Your task to perform on an android device: Clear the shopping cart on amazon. Search for "bose soundsport free" on amazon, select the first entry, add it to the cart, then select checkout. Image 0: 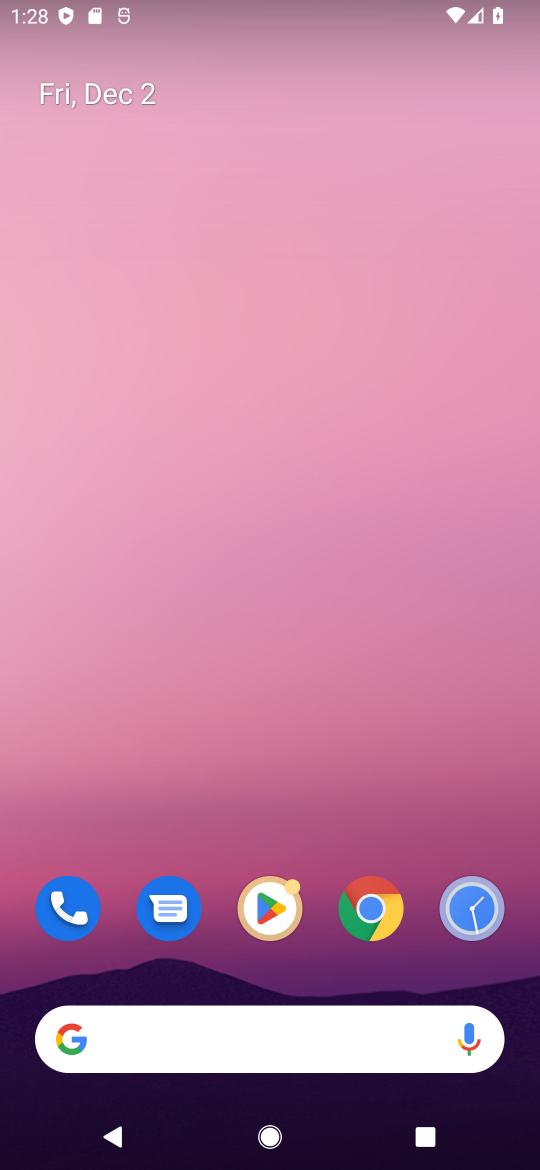
Step 0: drag from (193, 1050) to (336, 377)
Your task to perform on an android device: Clear the shopping cart on amazon. Search for "bose soundsport free" on amazon, select the first entry, add it to the cart, then select checkout. Image 1: 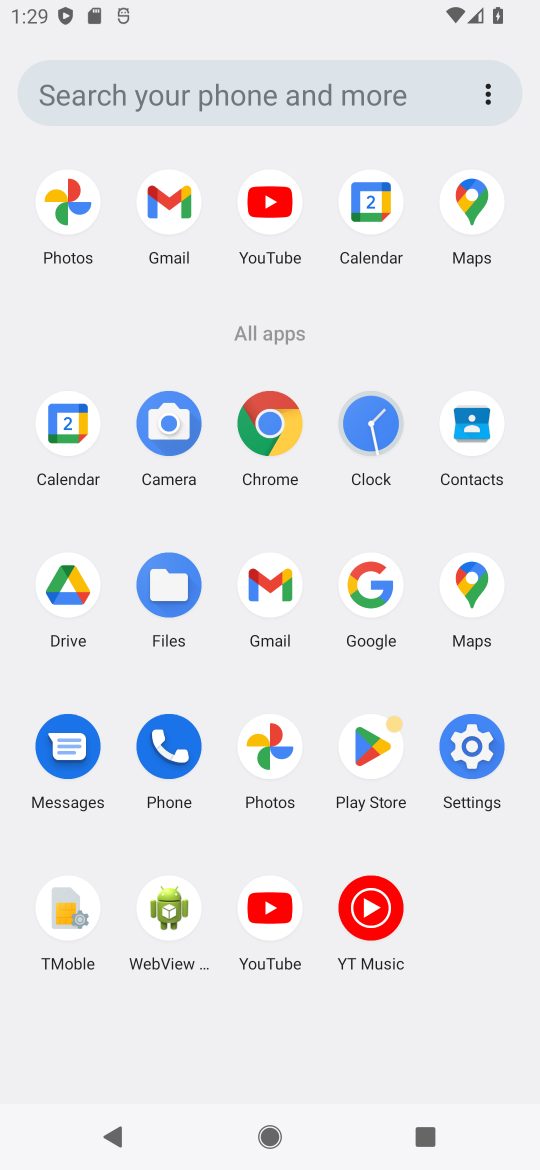
Step 1: click (380, 592)
Your task to perform on an android device: Clear the shopping cart on amazon. Search for "bose soundsport free" on amazon, select the first entry, add it to the cart, then select checkout. Image 2: 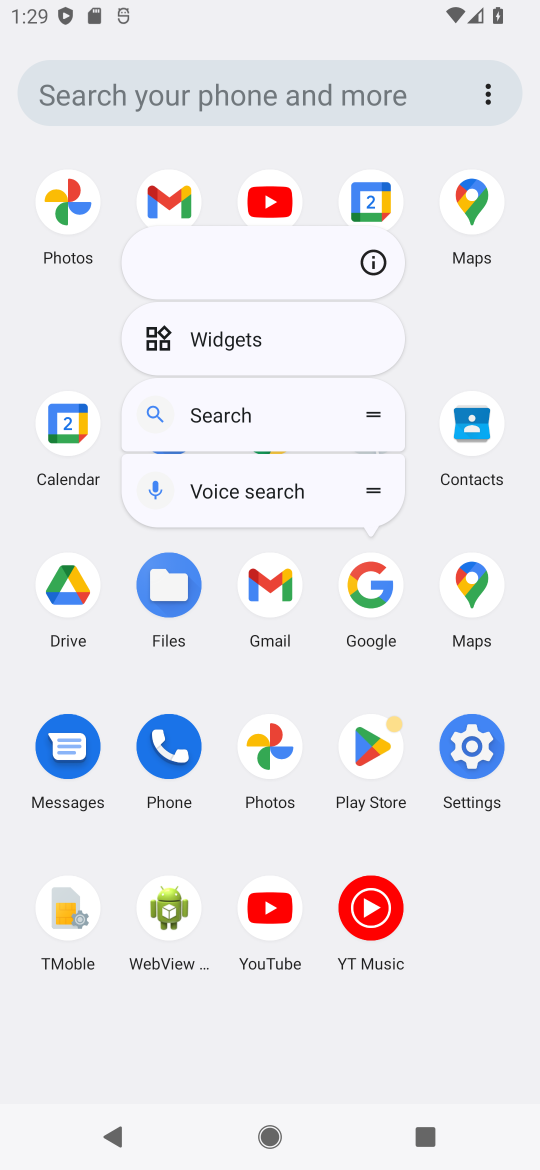
Step 2: click (376, 569)
Your task to perform on an android device: Clear the shopping cart on amazon. Search for "bose soundsport free" on amazon, select the first entry, add it to the cart, then select checkout. Image 3: 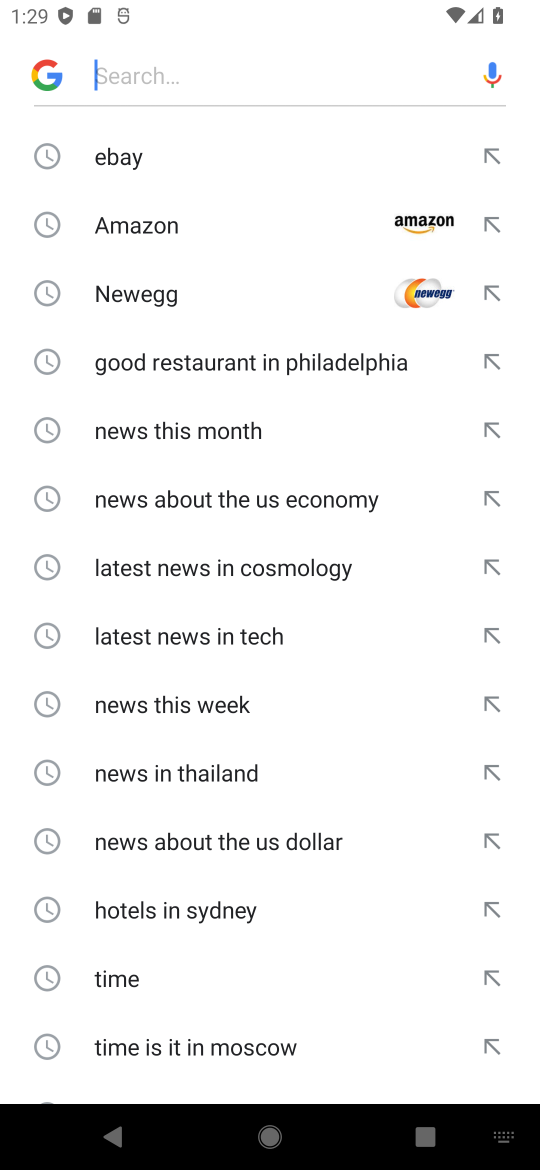
Step 3: click (369, 591)
Your task to perform on an android device: Clear the shopping cart on amazon. Search for "bose soundsport free" on amazon, select the first entry, add it to the cart, then select checkout. Image 4: 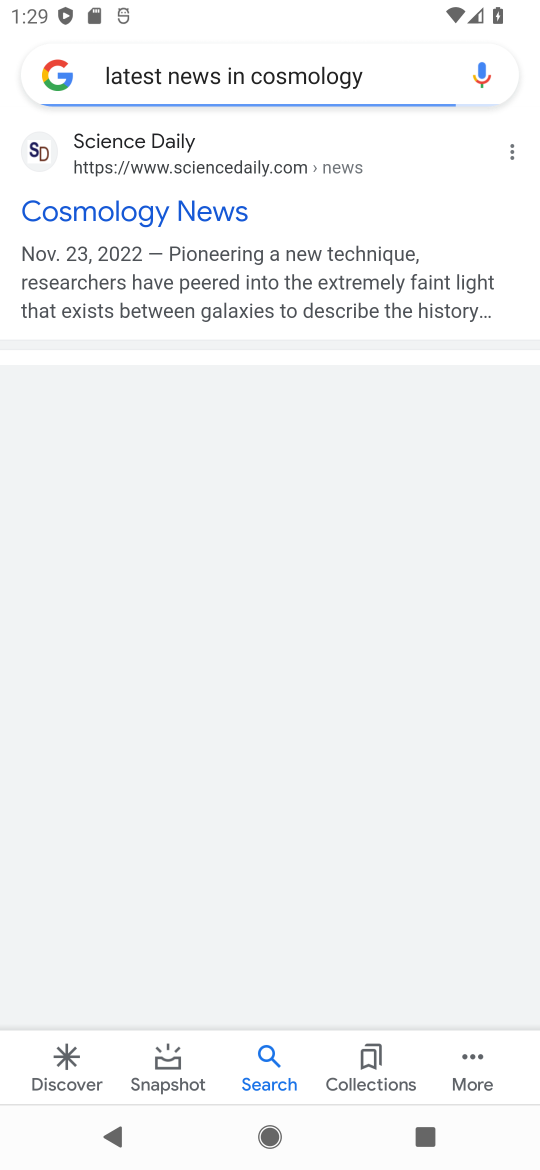
Step 4: click (391, 77)
Your task to perform on an android device: Clear the shopping cart on amazon. Search for "bose soundsport free" on amazon, select the first entry, add it to the cart, then select checkout. Image 5: 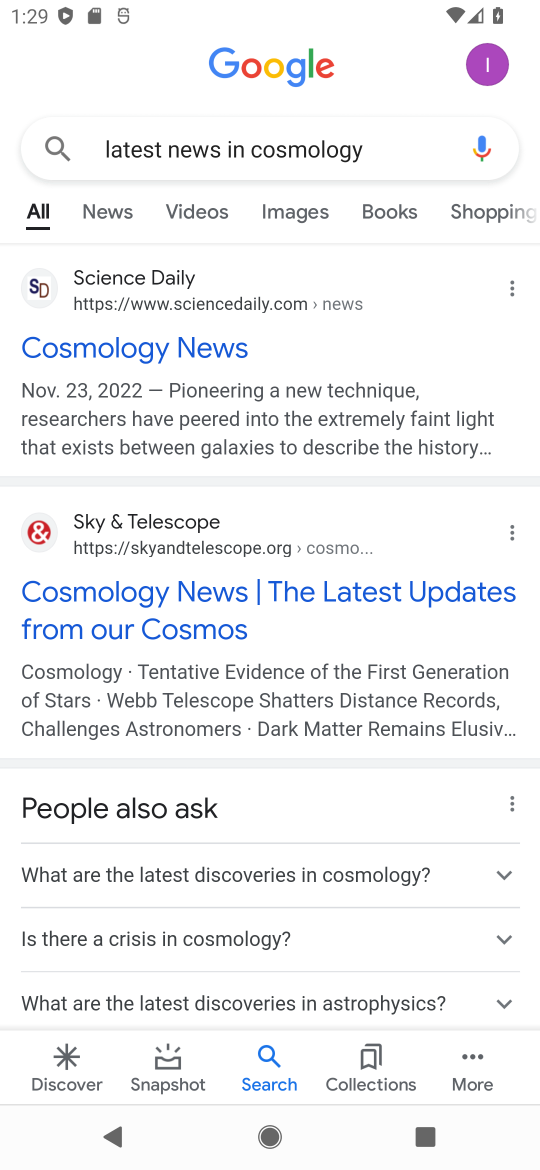
Step 5: click (386, 151)
Your task to perform on an android device: Clear the shopping cart on amazon. Search for "bose soundsport free" on amazon, select the first entry, add it to the cart, then select checkout. Image 6: 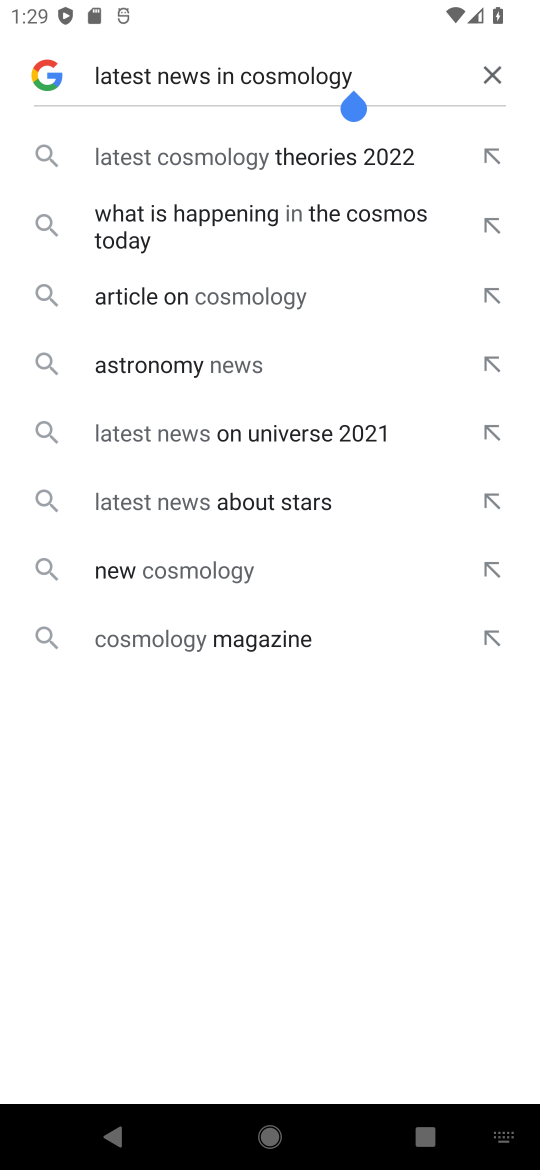
Step 6: click (489, 73)
Your task to perform on an android device: Clear the shopping cart on amazon. Search for "bose soundsport free" on amazon, select the first entry, add it to the cart, then select checkout. Image 7: 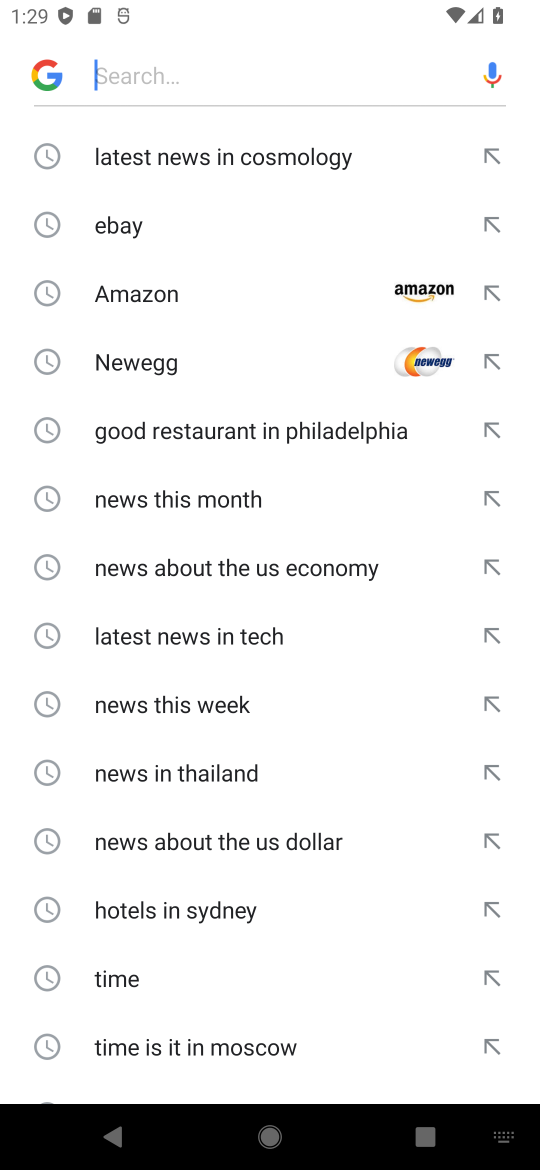
Step 7: click (174, 288)
Your task to perform on an android device: Clear the shopping cart on amazon. Search for "bose soundsport free" on amazon, select the first entry, add it to the cart, then select checkout. Image 8: 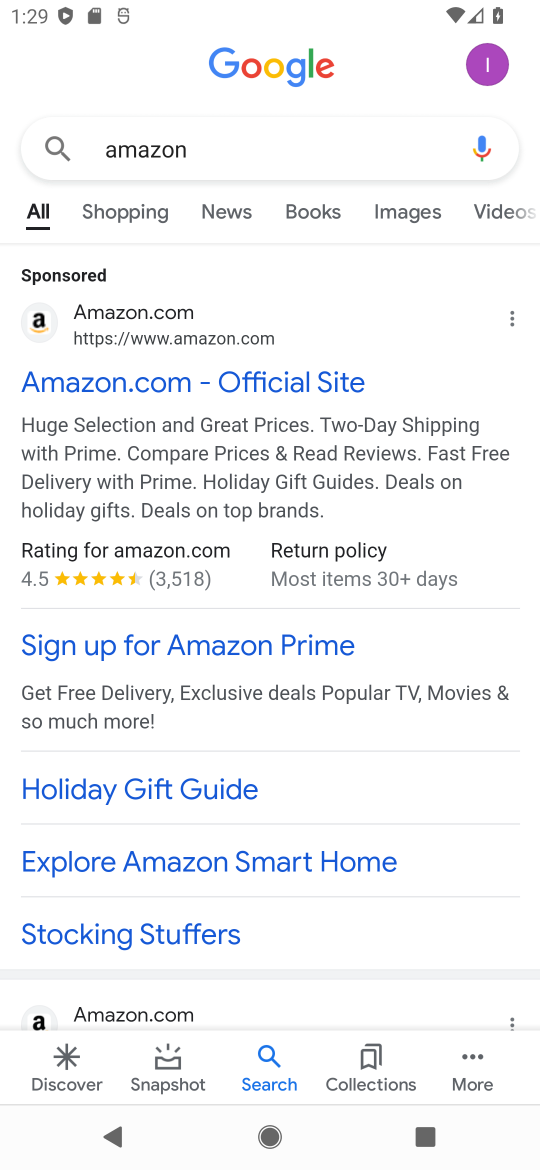
Step 8: click (152, 384)
Your task to perform on an android device: Clear the shopping cart on amazon. Search for "bose soundsport free" on amazon, select the first entry, add it to the cart, then select checkout. Image 9: 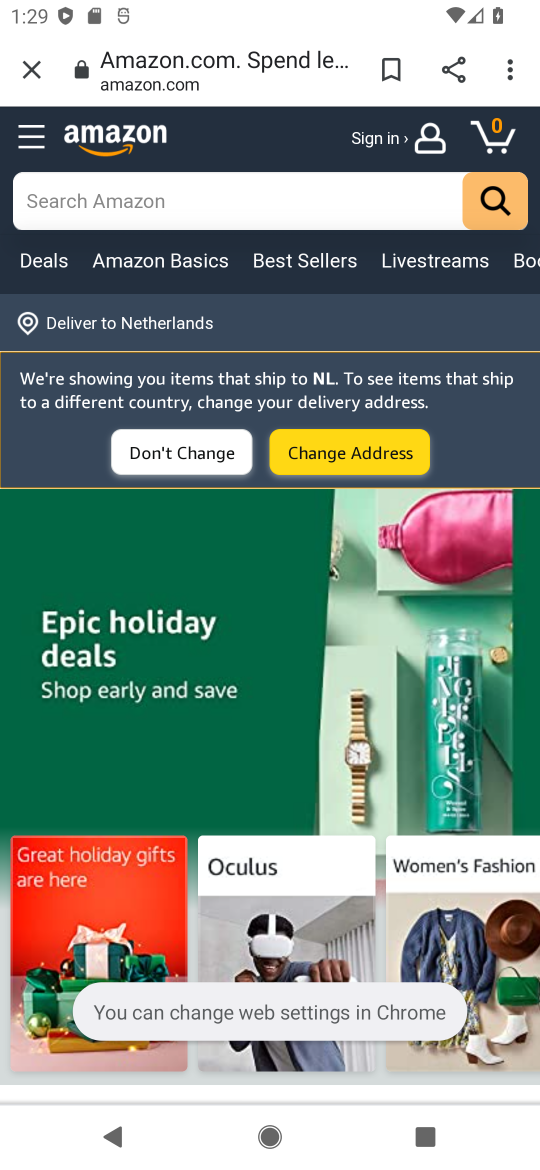
Step 9: click (168, 216)
Your task to perform on an android device: Clear the shopping cart on amazon. Search for "bose soundsport free" on amazon, select the first entry, add it to the cart, then select checkout. Image 10: 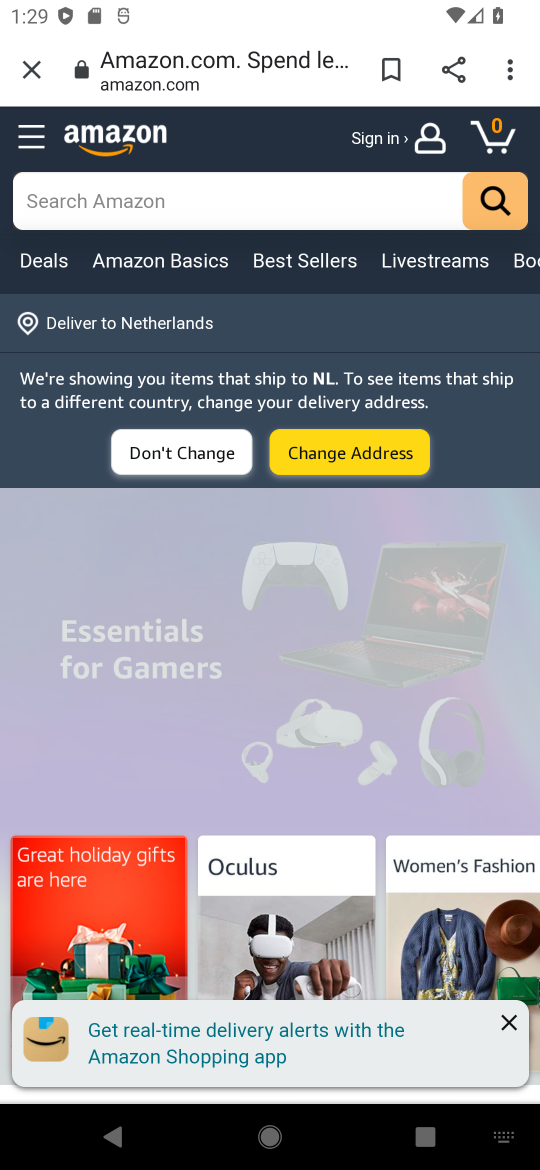
Step 10: type "bose soundsport free"
Your task to perform on an android device: Clear the shopping cart on amazon. Search for "bose soundsport free" on amazon, select the first entry, add it to the cart, then select checkout. Image 11: 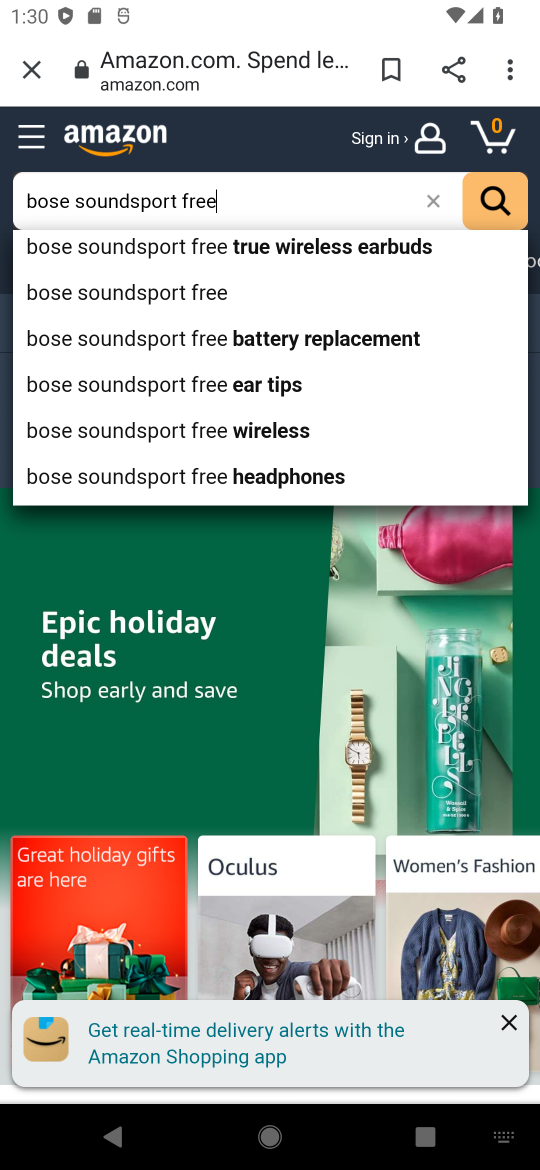
Step 11: click (244, 252)
Your task to perform on an android device: Clear the shopping cart on amazon. Search for "bose soundsport free" on amazon, select the first entry, add it to the cart, then select checkout. Image 12: 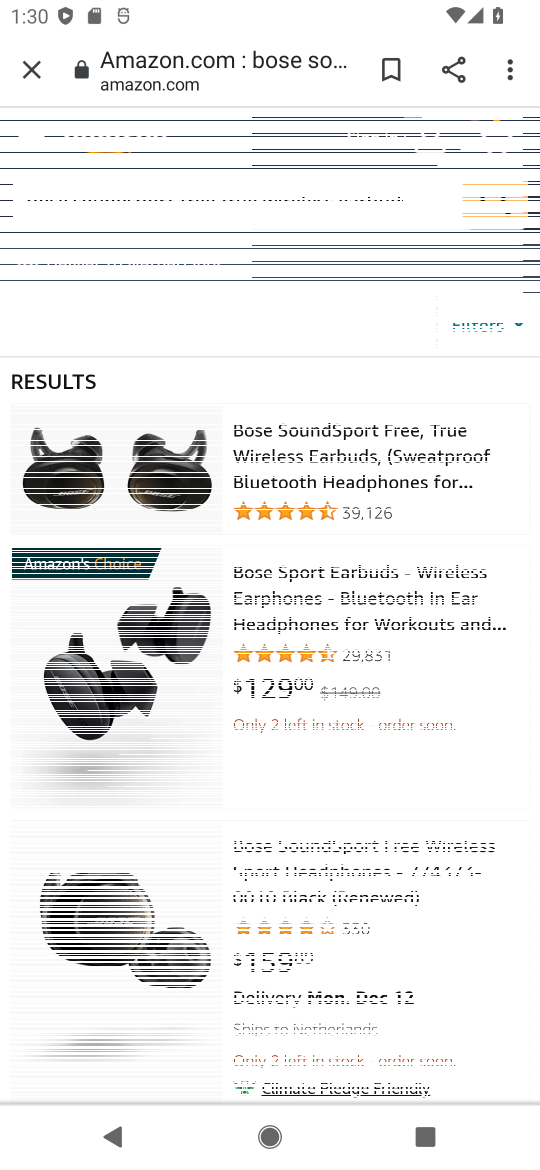
Step 12: click (290, 469)
Your task to perform on an android device: Clear the shopping cart on amazon. Search for "bose soundsport free" on amazon, select the first entry, add it to the cart, then select checkout. Image 13: 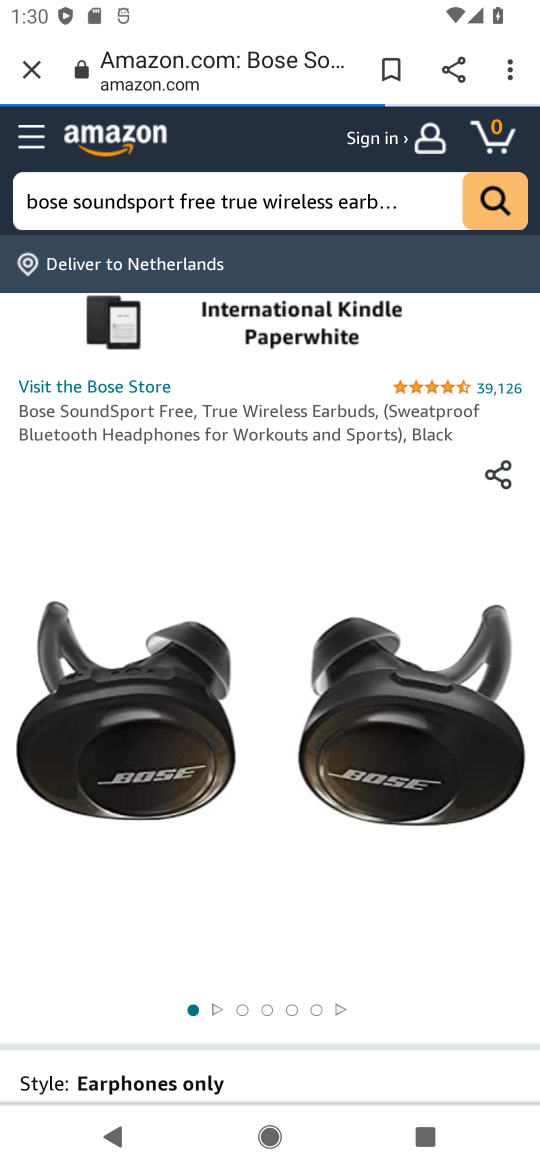
Step 13: drag from (294, 899) to (359, 385)
Your task to perform on an android device: Clear the shopping cart on amazon. Search for "bose soundsport free" on amazon, select the first entry, add it to the cart, then select checkout. Image 14: 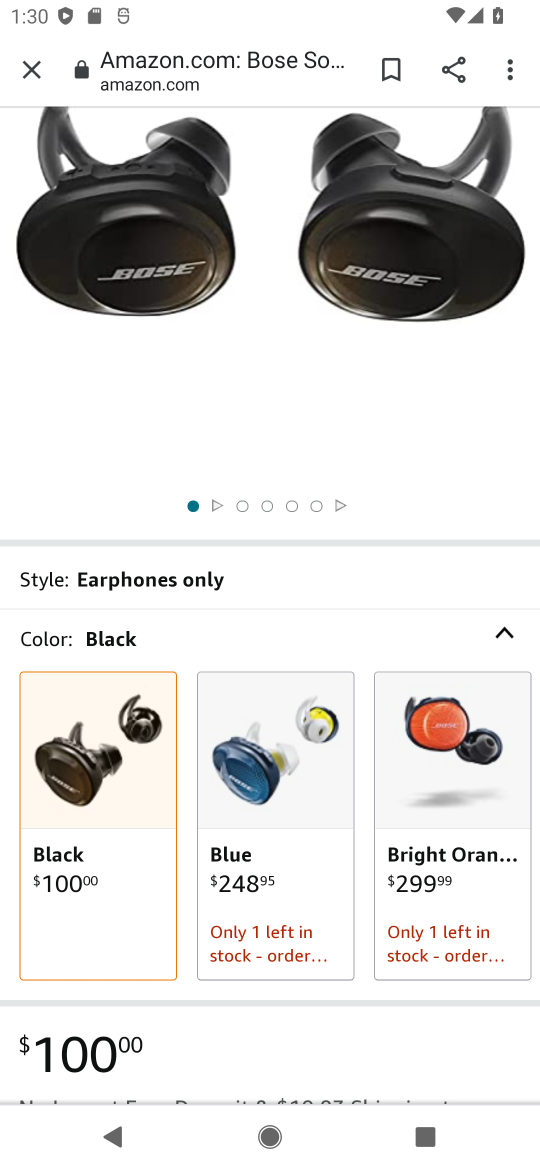
Step 14: drag from (367, 519) to (367, 297)
Your task to perform on an android device: Clear the shopping cart on amazon. Search for "bose soundsport free" on amazon, select the first entry, add it to the cart, then select checkout. Image 15: 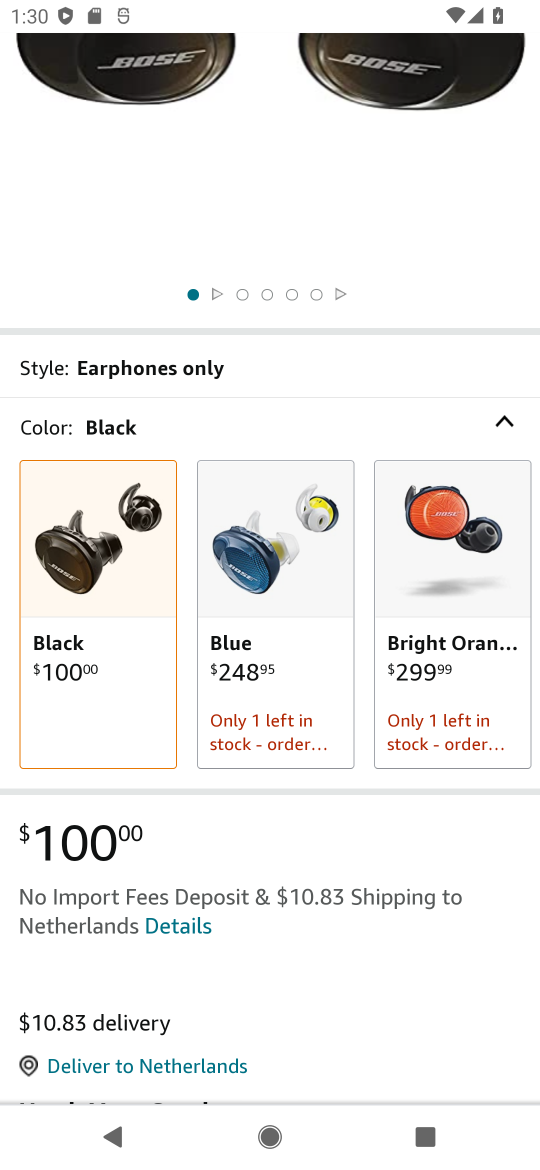
Step 15: drag from (243, 825) to (254, 358)
Your task to perform on an android device: Clear the shopping cart on amazon. Search for "bose soundsport free" on amazon, select the first entry, add it to the cart, then select checkout. Image 16: 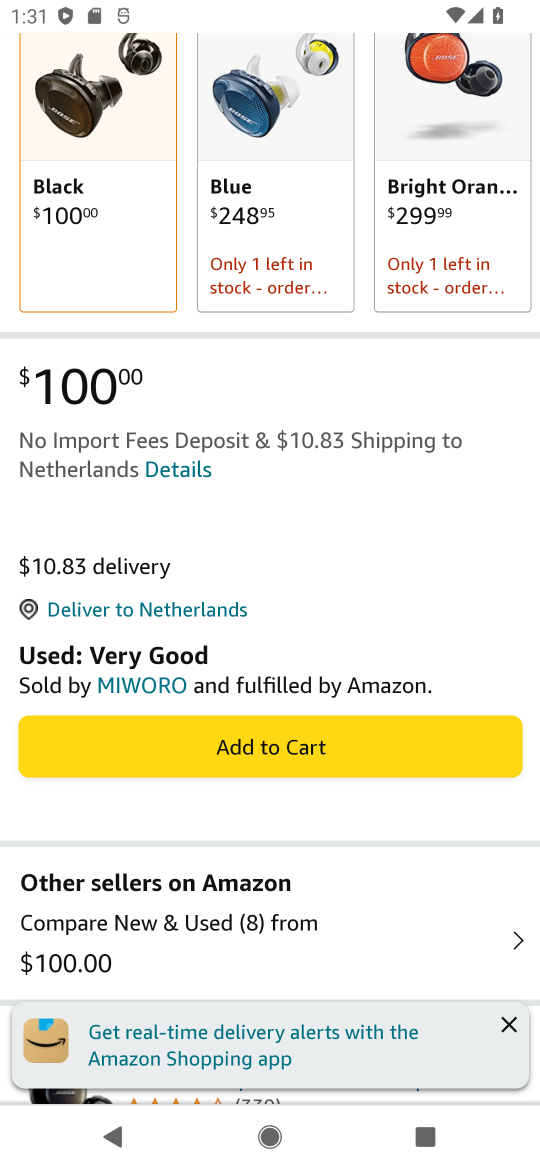
Step 16: click (295, 744)
Your task to perform on an android device: Clear the shopping cart on amazon. Search for "bose soundsport free" on amazon, select the first entry, add it to the cart, then select checkout. Image 17: 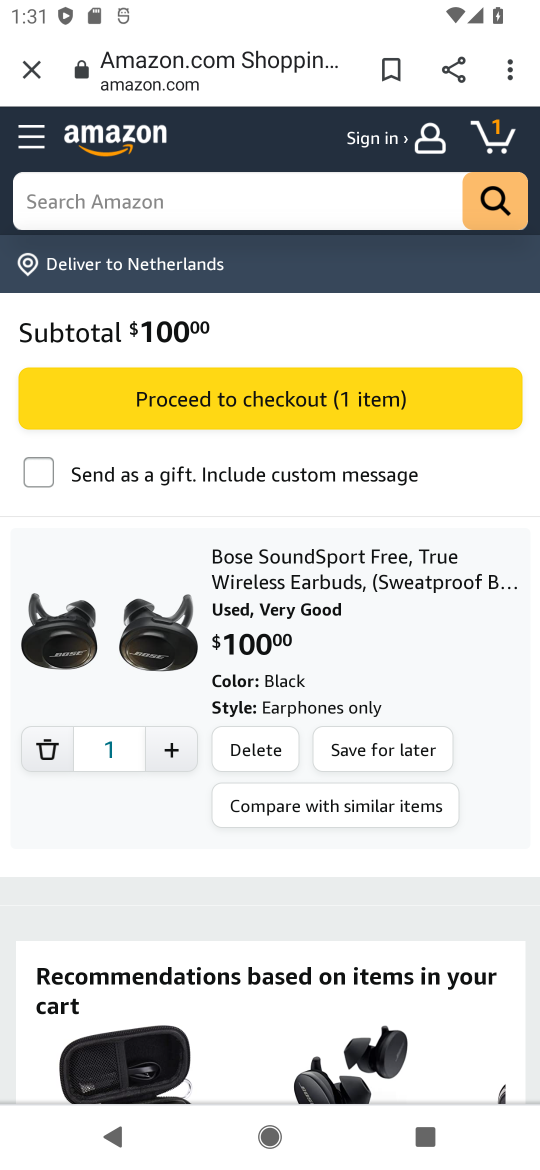
Step 17: drag from (293, 864) to (357, 290)
Your task to perform on an android device: Clear the shopping cart on amazon. Search for "bose soundsport free" on amazon, select the first entry, add it to the cart, then select checkout. Image 18: 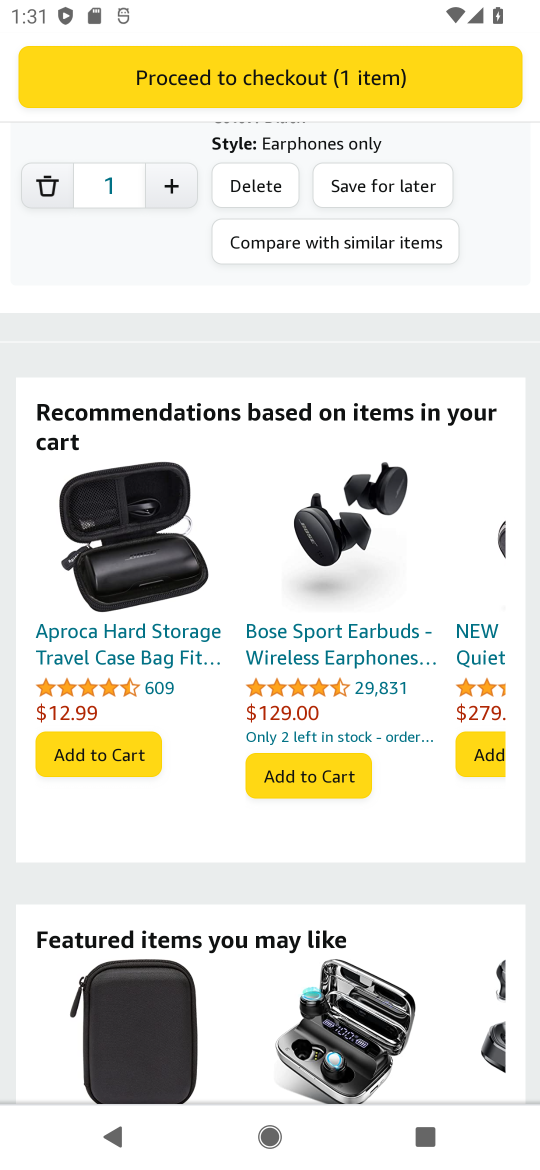
Step 18: drag from (212, 810) to (256, 222)
Your task to perform on an android device: Clear the shopping cart on amazon. Search for "bose soundsport free" on amazon, select the first entry, add it to the cart, then select checkout. Image 19: 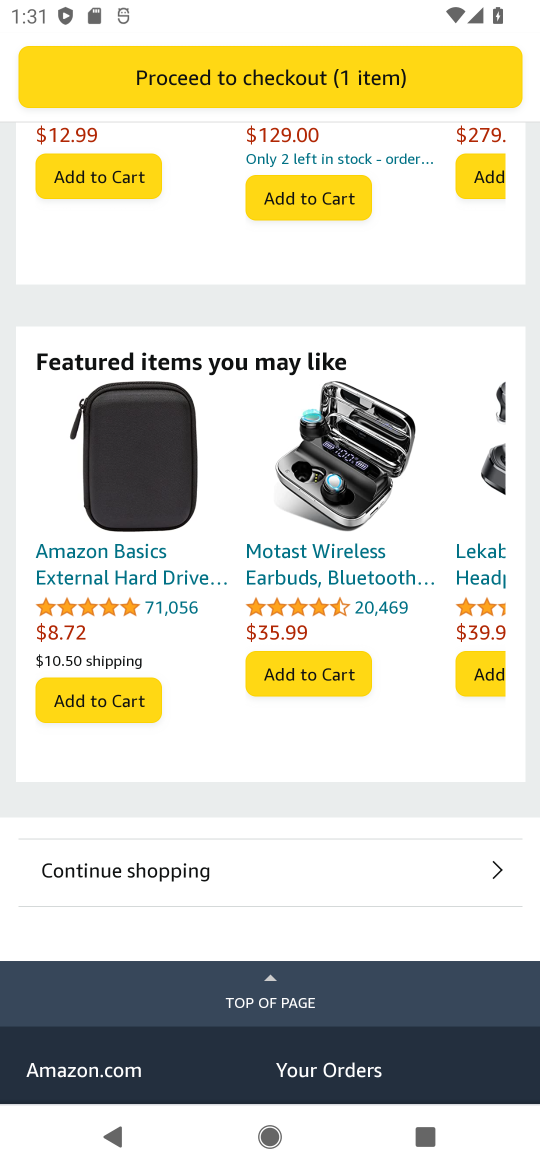
Step 19: drag from (187, 132) to (187, 667)
Your task to perform on an android device: Clear the shopping cart on amazon. Search for "bose soundsport free" on amazon, select the first entry, add it to the cart, then select checkout. Image 20: 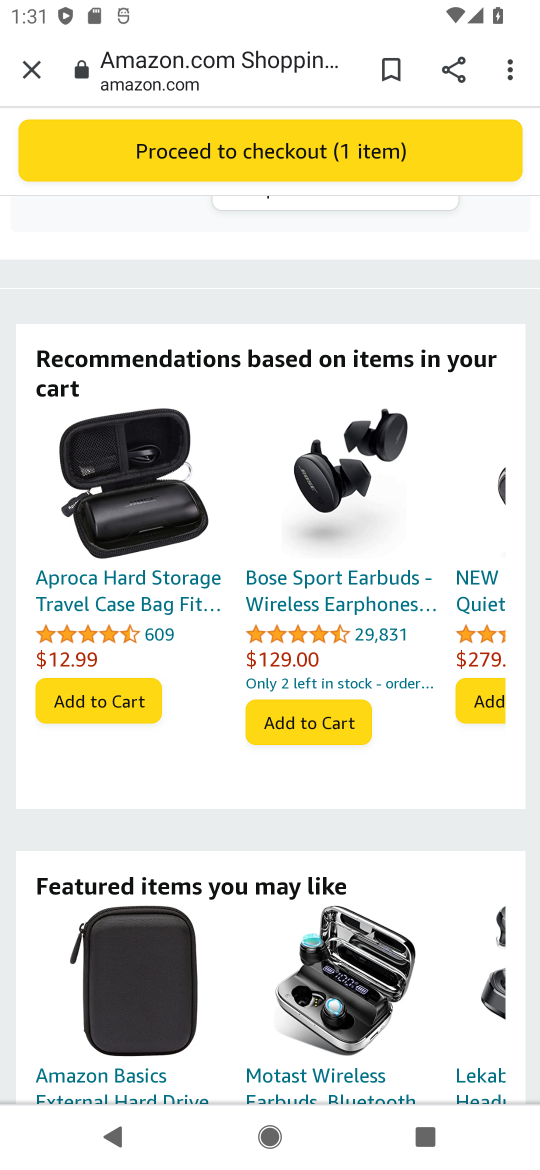
Step 20: click (262, 151)
Your task to perform on an android device: Clear the shopping cart on amazon. Search for "bose soundsport free" on amazon, select the first entry, add it to the cart, then select checkout. Image 21: 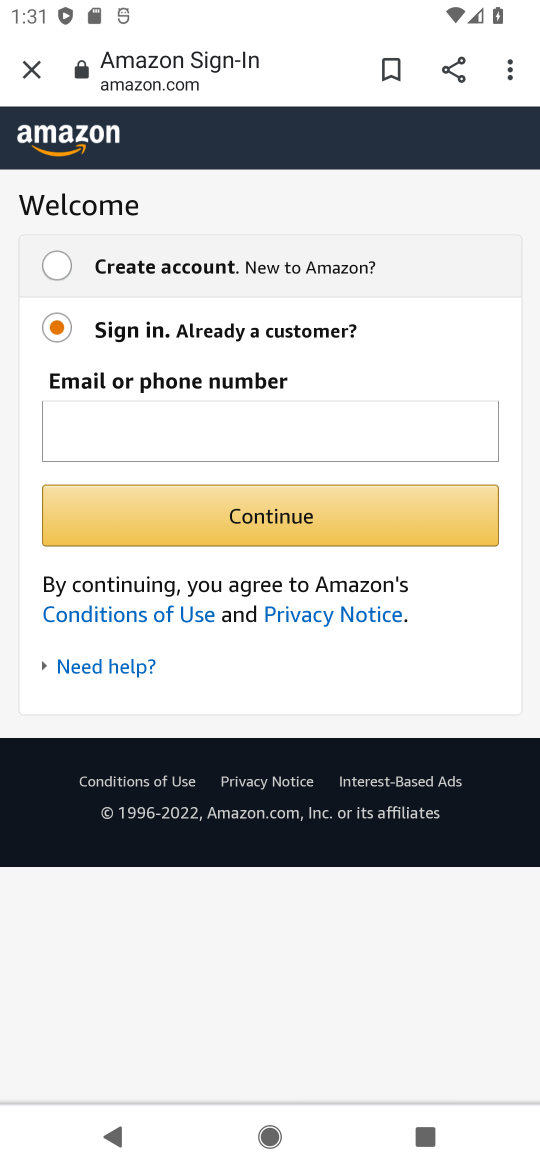
Step 21: task complete